Your task to perform on an android device: Open Chrome and go to the settings page Image 0: 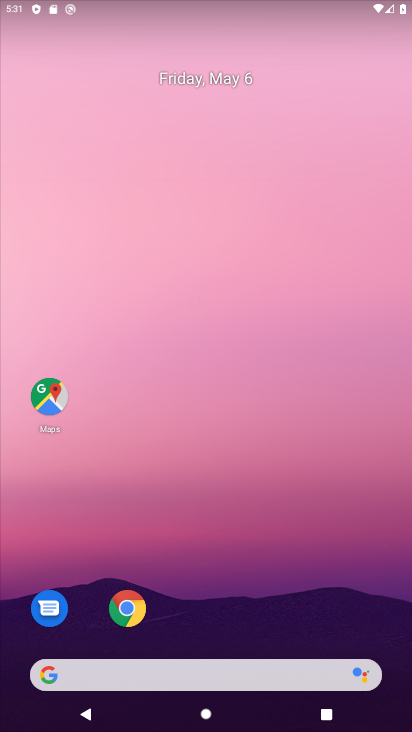
Step 0: click (211, 478)
Your task to perform on an android device: Open Chrome and go to the settings page Image 1: 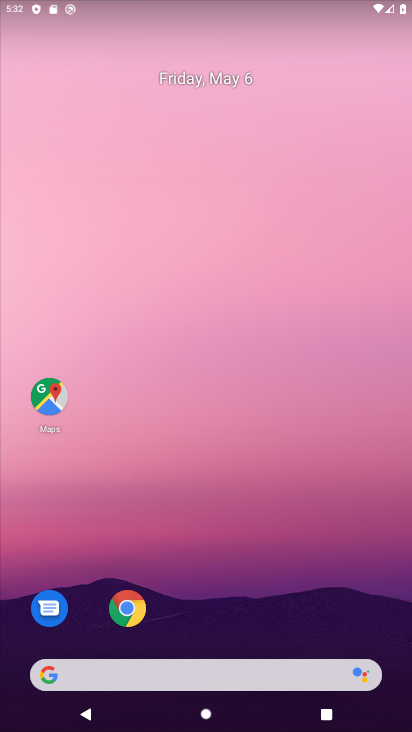
Step 1: click (135, 633)
Your task to perform on an android device: Open Chrome and go to the settings page Image 2: 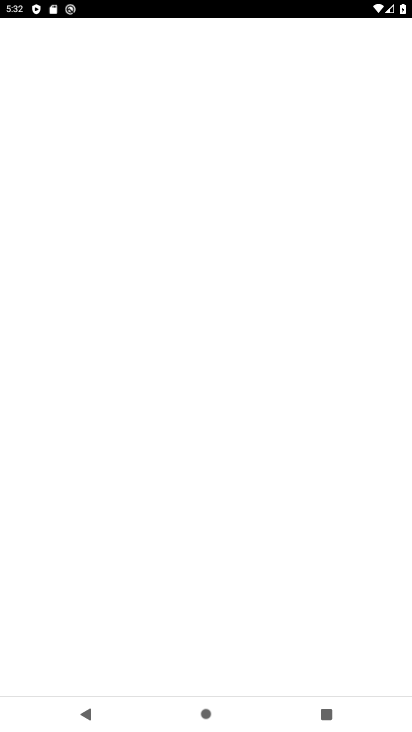
Step 2: click (150, 593)
Your task to perform on an android device: Open Chrome and go to the settings page Image 3: 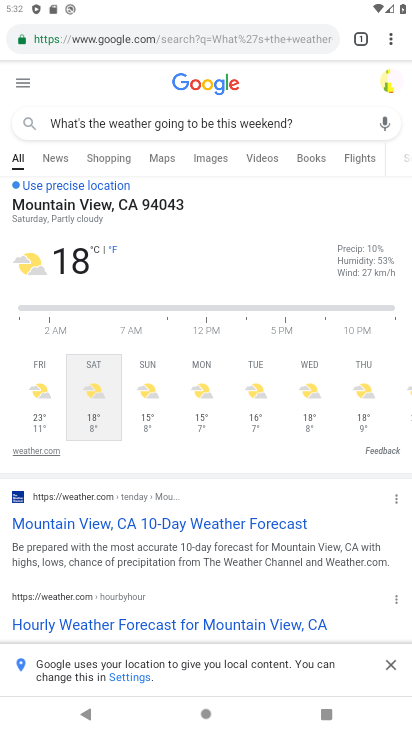
Step 3: task complete